Your task to perform on an android device: change the clock display to show seconds Image 0: 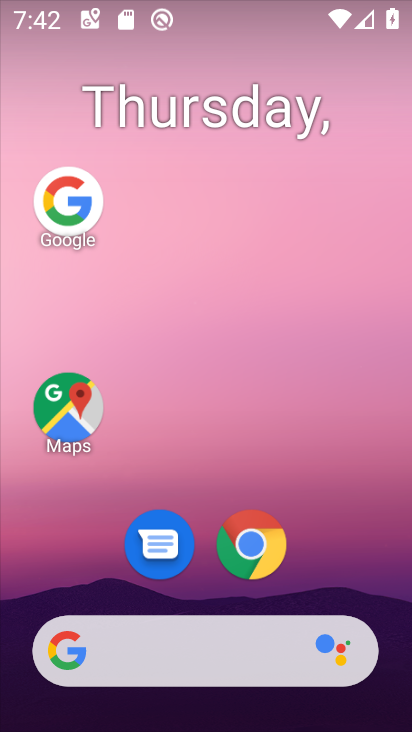
Step 0: drag from (273, 692) to (277, 277)
Your task to perform on an android device: change the clock display to show seconds Image 1: 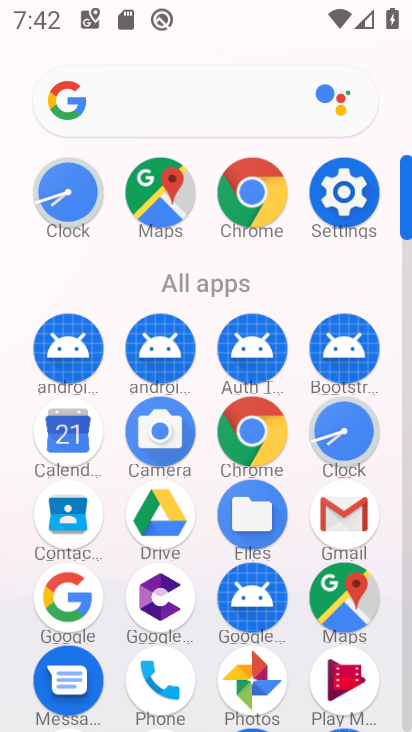
Step 1: click (340, 407)
Your task to perform on an android device: change the clock display to show seconds Image 2: 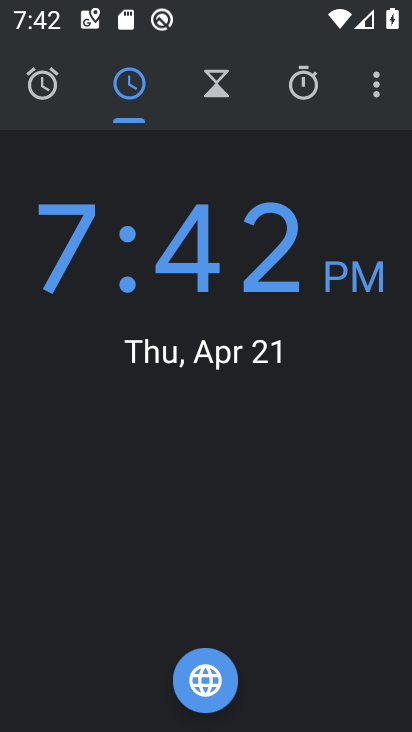
Step 2: click (379, 91)
Your task to perform on an android device: change the clock display to show seconds Image 3: 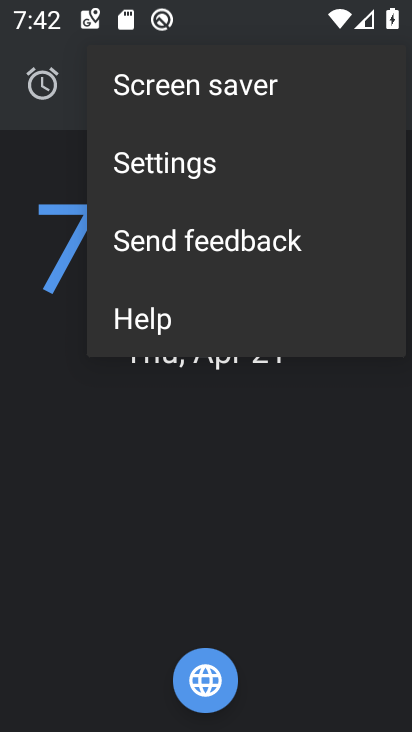
Step 3: click (225, 154)
Your task to perform on an android device: change the clock display to show seconds Image 4: 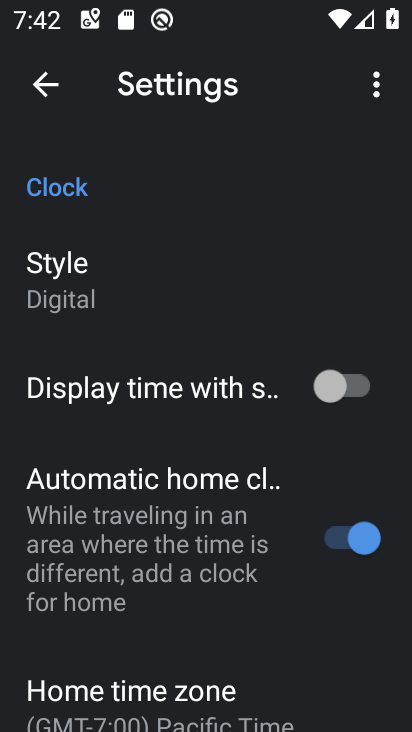
Step 4: click (257, 402)
Your task to perform on an android device: change the clock display to show seconds Image 5: 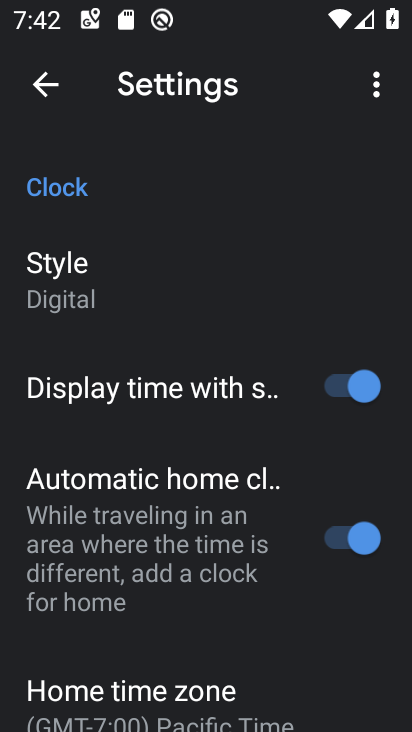
Step 5: task complete